Your task to perform on an android device: toggle data saver in the chrome app Image 0: 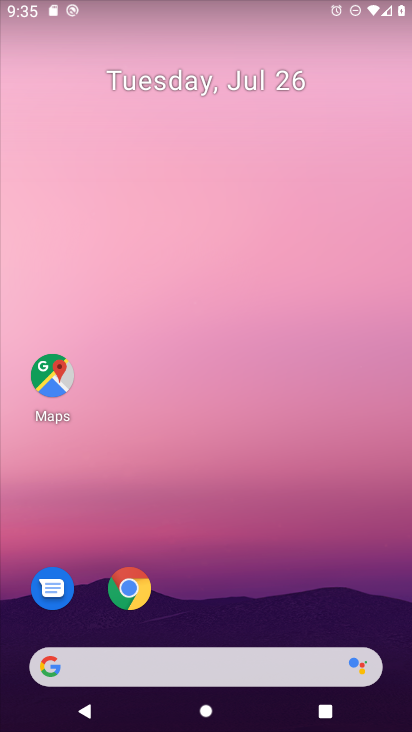
Step 0: drag from (242, 677) to (238, 185)
Your task to perform on an android device: toggle data saver in the chrome app Image 1: 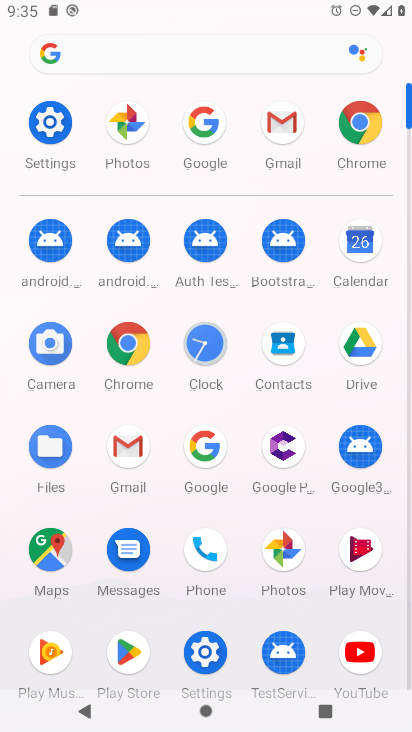
Step 1: click (372, 148)
Your task to perform on an android device: toggle data saver in the chrome app Image 2: 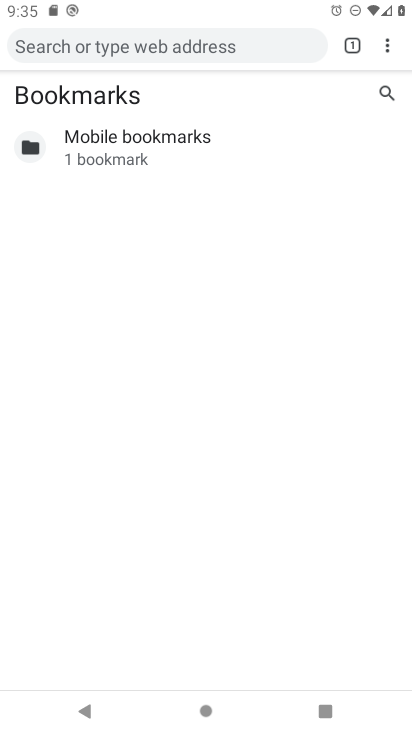
Step 2: press home button
Your task to perform on an android device: toggle data saver in the chrome app Image 3: 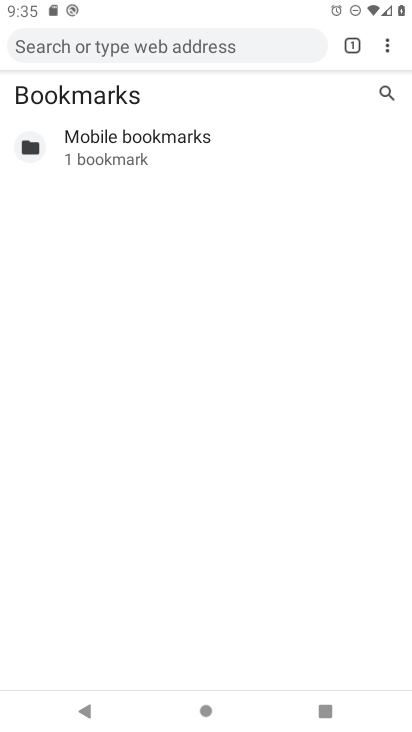
Step 3: press home button
Your task to perform on an android device: toggle data saver in the chrome app Image 4: 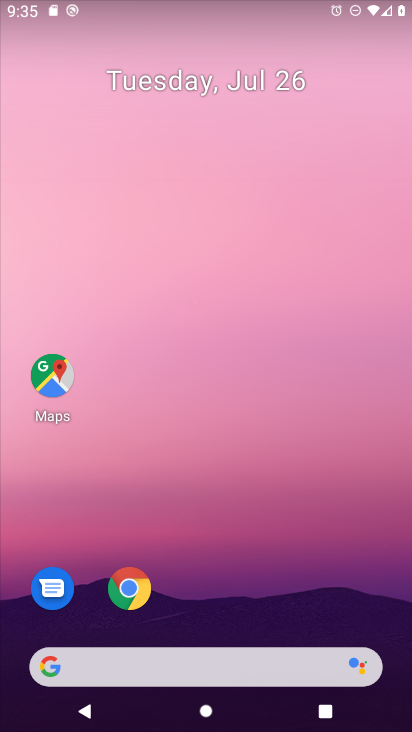
Step 4: click (142, 601)
Your task to perform on an android device: toggle data saver in the chrome app Image 5: 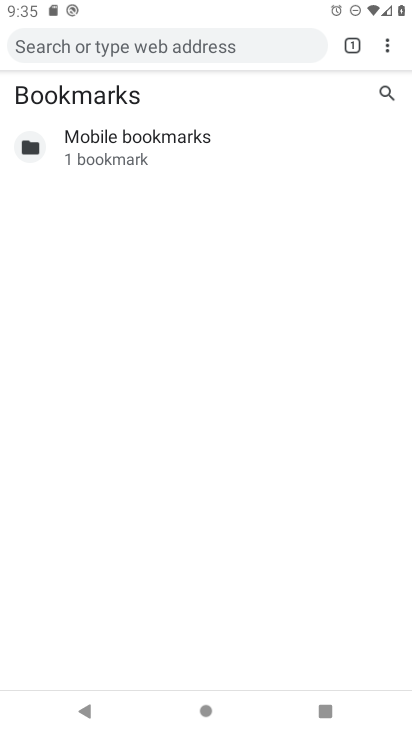
Step 5: click (387, 46)
Your task to perform on an android device: toggle data saver in the chrome app Image 6: 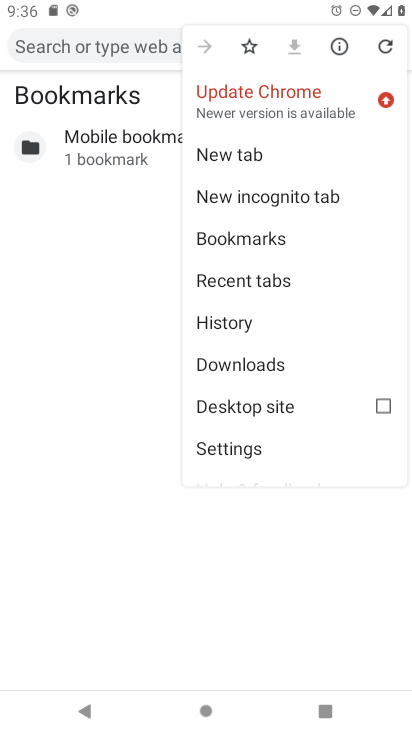
Step 6: click (230, 452)
Your task to perform on an android device: toggle data saver in the chrome app Image 7: 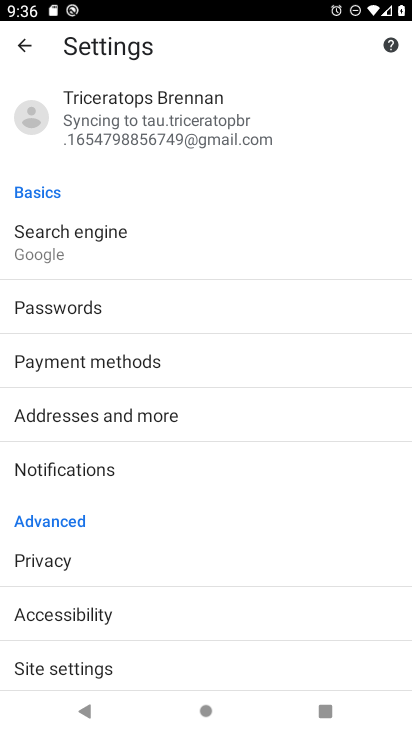
Step 7: drag from (146, 615) to (157, 501)
Your task to perform on an android device: toggle data saver in the chrome app Image 8: 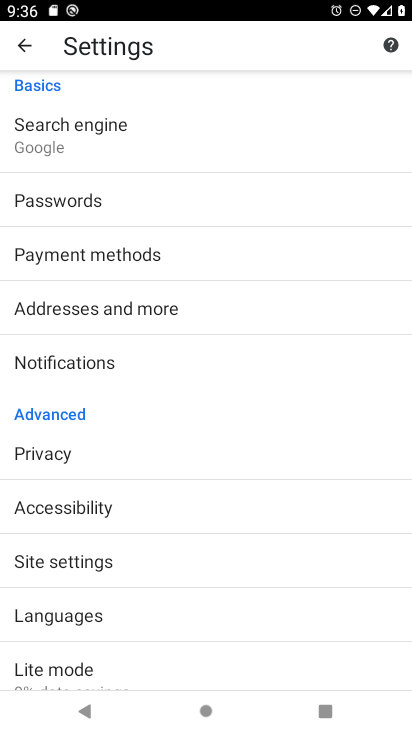
Step 8: click (80, 561)
Your task to perform on an android device: toggle data saver in the chrome app Image 9: 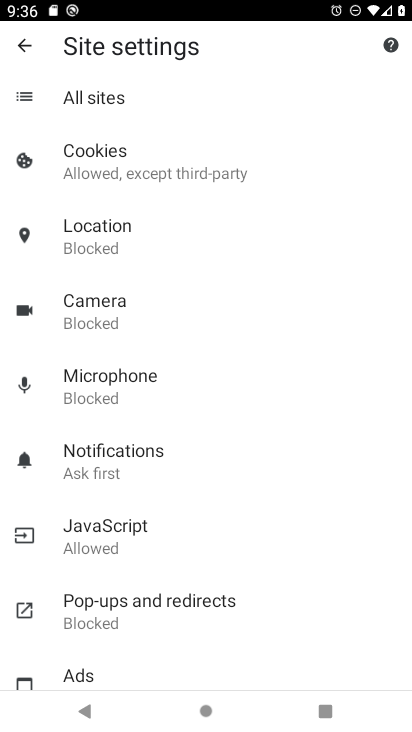
Step 9: click (23, 44)
Your task to perform on an android device: toggle data saver in the chrome app Image 10: 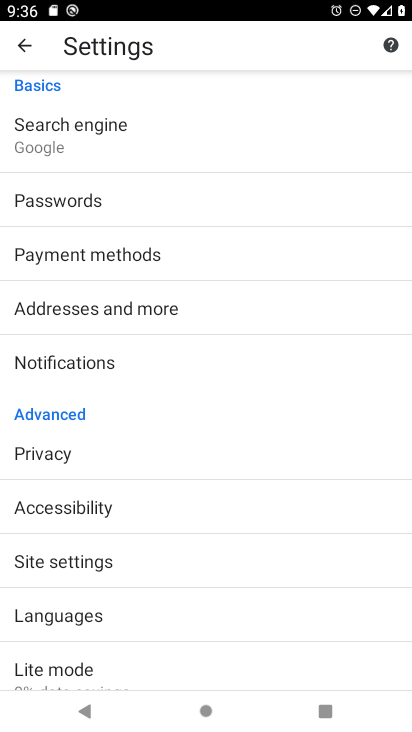
Step 10: click (48, 660)
Your task to perform on an android device: toggle data saver in the chrome app Image 11: 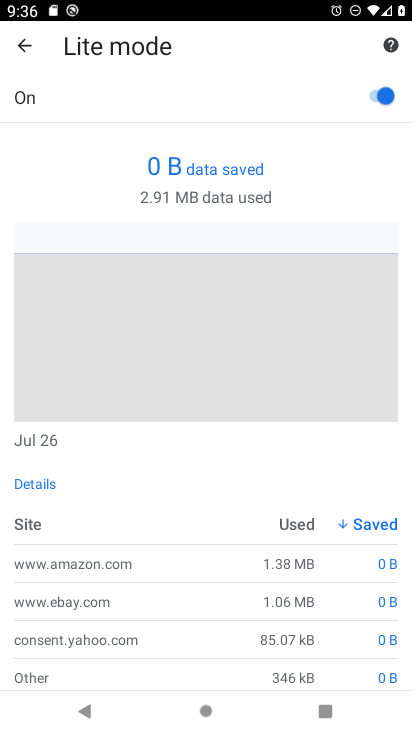
Step 11: click (366, 92)
Your task to perform on an android device: toggle data saver in the chrome app Image 12: 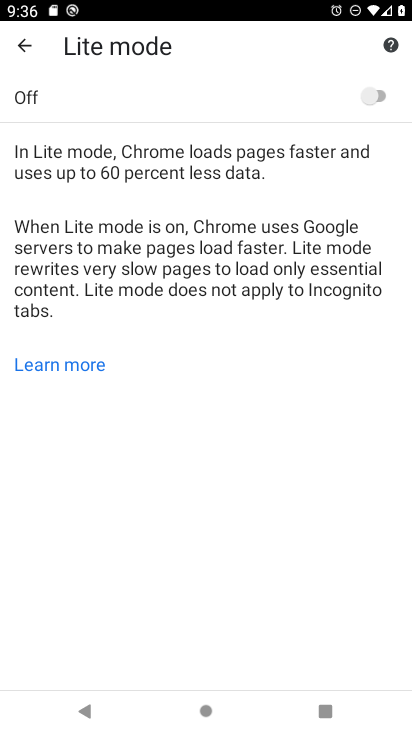
Step 12: task complete